Your task to perform on an android device: Open Amazon Image 0: 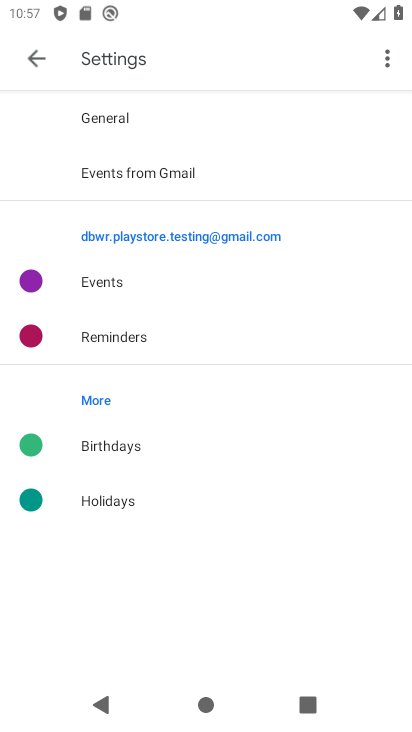
Step 0: press home button
Your task to perform on an android device: Open Amazon Image 1: 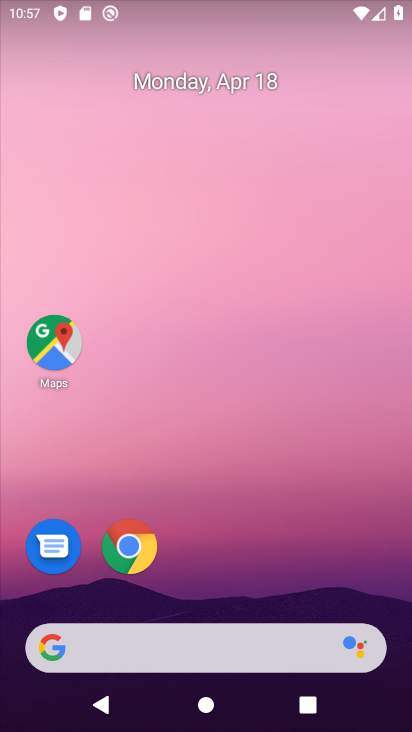
Step 1: drag from (390, 540) to (389, 110)
Your task to perform on an android device: Open Amazon Image 2: 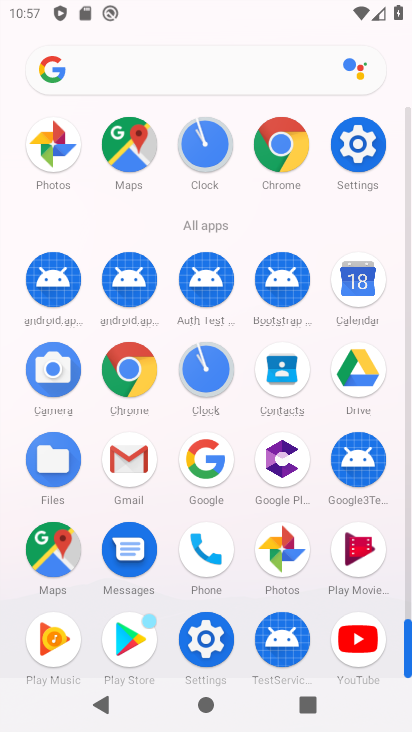
Step 2: click (117, 379)
Your task to perform on an android device: Open Amazon Image 3: 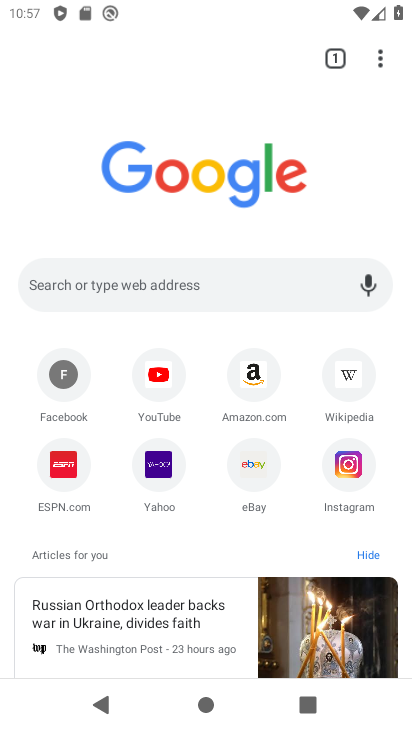
Step 3: click (254, 376)
Your task to perform on an android device: Open Amazon Image 4: 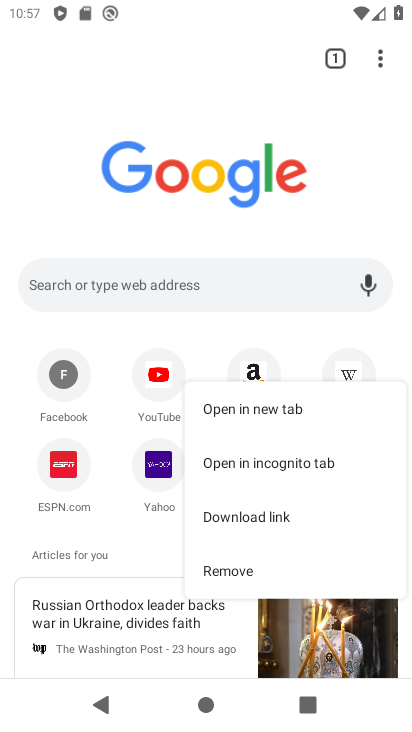
Step 4: click (251, 368)
Your task to perform on an android device: Open Amazon Image 5: 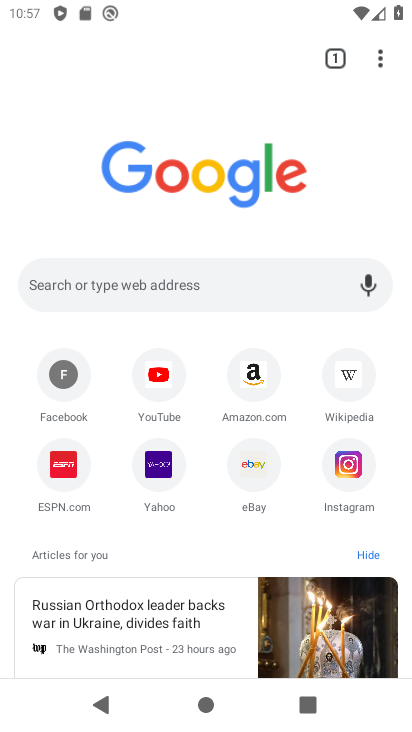
Step 5: click (251, 381)
Your task to perform on an android device: Open Amazon Image 6: 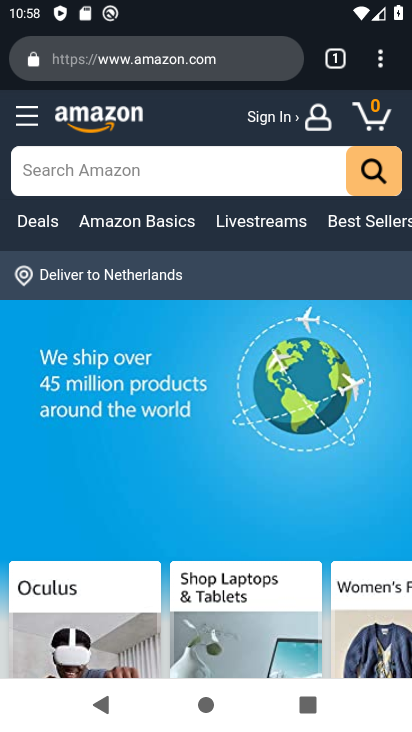
Step 6: task complete